Your task to perform on an android device: manage bookmarks in the chrome app Image 0: 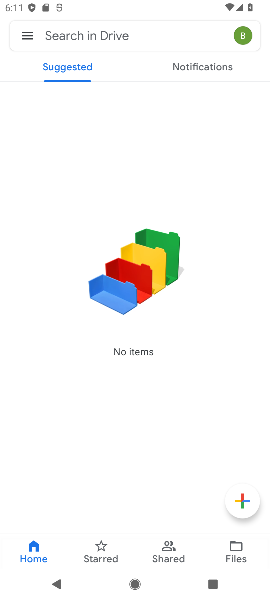
Step 0: press home button
Your task to perform on an android device: manage bookmarks in the chrome app Image 1: 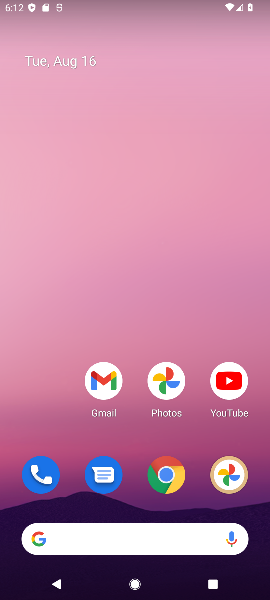
Step 1: drag from (199, 493) to (120, 111)
Your task to perform on an android device: manage bookmarks in the chrome app Image 2: 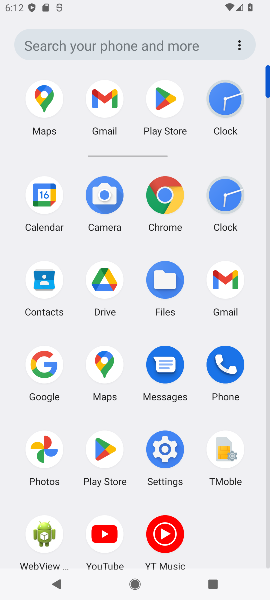
Step 2: click (159, 201)
Your task to perform on an android device: manage bookmarks in the chrome app Image 3: 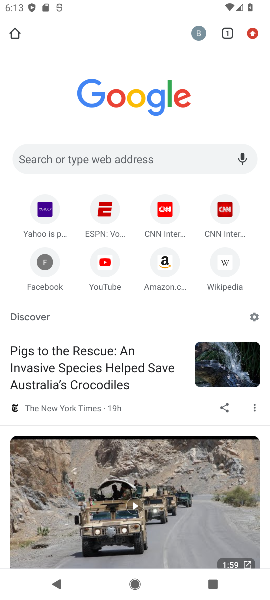
Step 3: task complete